Your task to perform on an android device: Open maps Image 0: 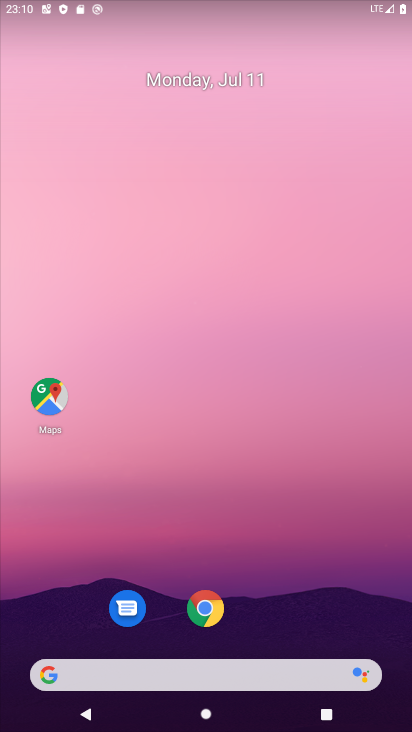
Step 0: click (40, 400)
Your task to perform on an android device: Open maps Image 1: 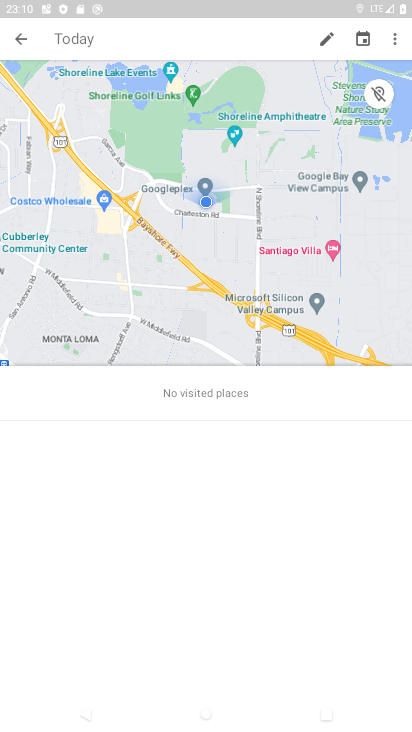
Step 1: task complete